Your task to perform on an android device: Open internet settings Image 0: 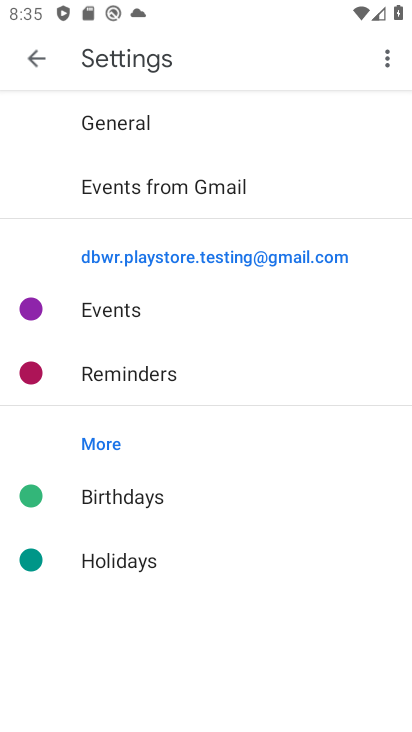
Step 0: press home button
Your task to perform on an android device: Open internet settings Image 1: 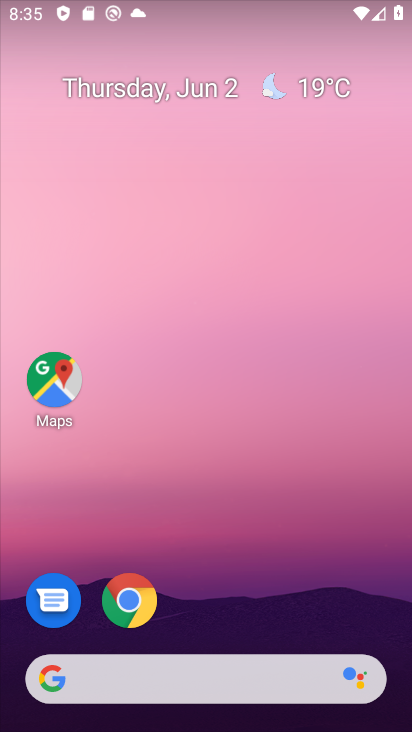
Step 1: drag from (228, 633) to (236, 198)
Your task to perform on an android device: Open internet settings Image 2: 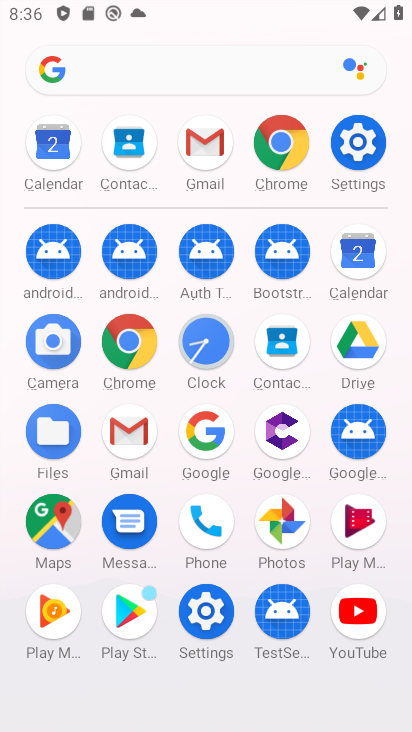
Step 2: click (350, 168)
Your task to perform on an android device: Open internet settings Image 3: 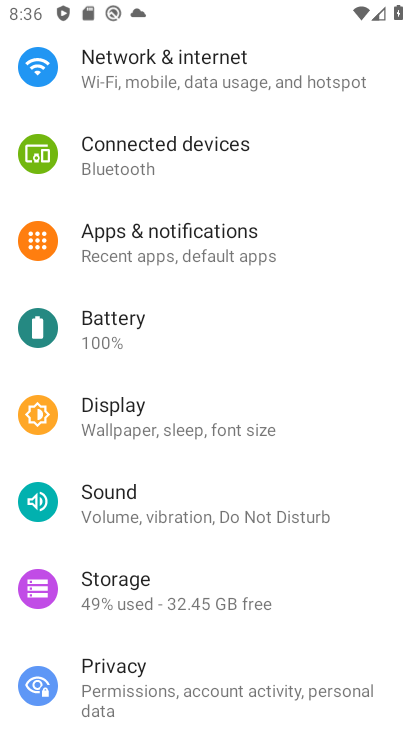
Step 3: drag from (206, 206) to (206, 614)
Your task to perform on an android device: Open internet settings Image 4: 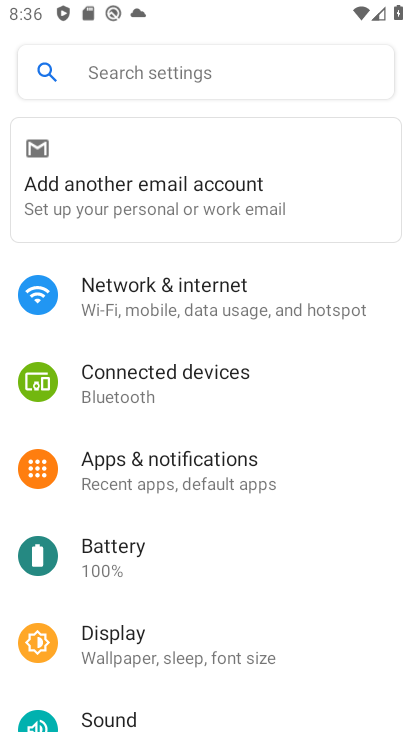
Step 4: click (177, 307)
Your task to perform on an android device: Open internet settings Image 5: 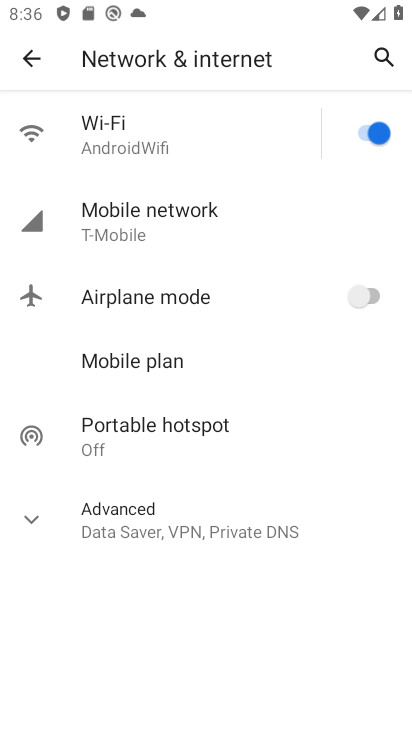
Step 5: click (170, 214)
Your task to perform on an android device: Open internet settings Image 6: 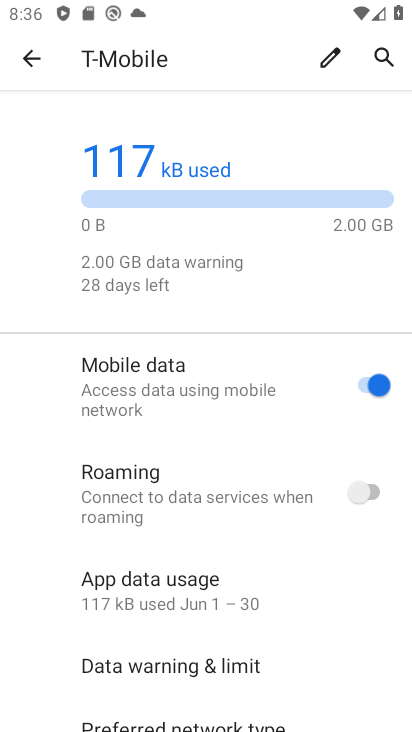
Step 6: task complete